Your task to perform on an android device: Add asus rog to the cart on walmart.com Image 0: 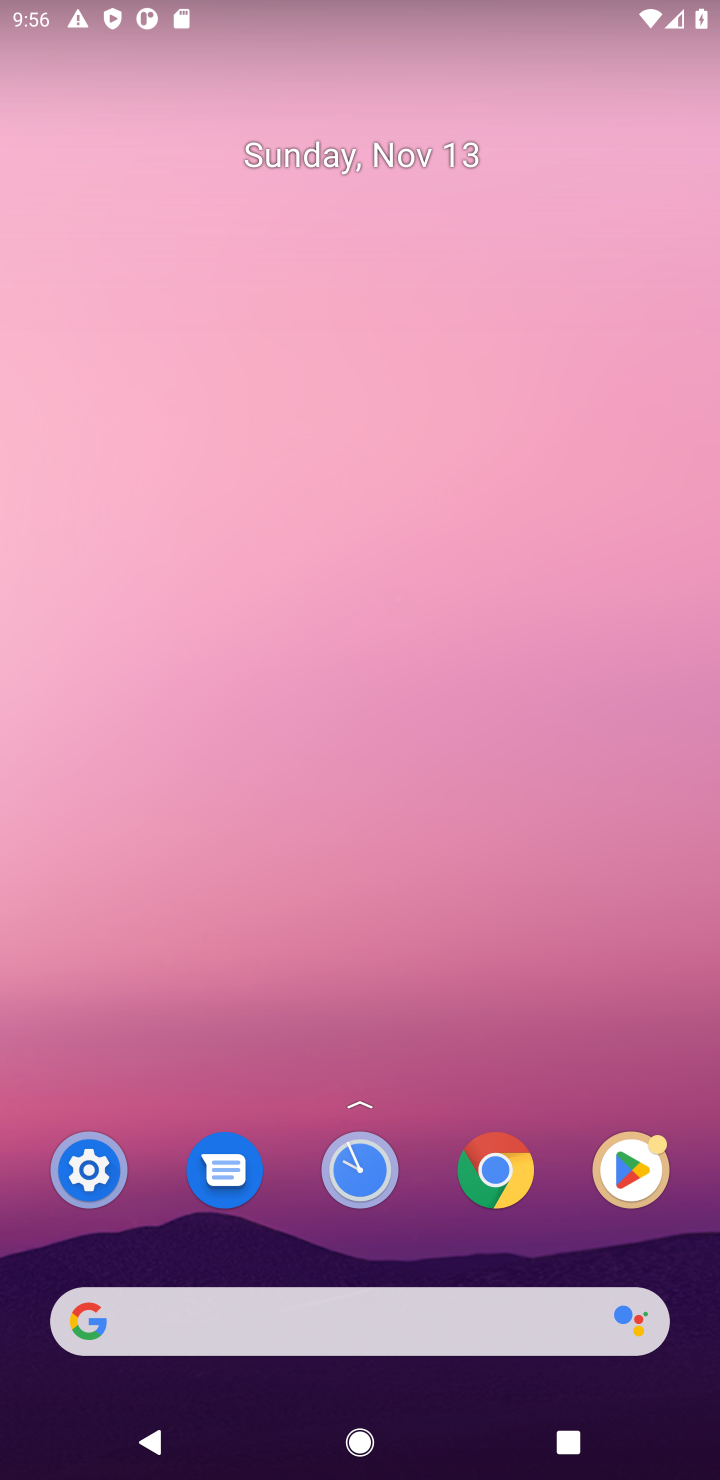
Step 0: click (243, 1340)
Your task to perform on an android device: Add asus rog to the cart on walmart.com Image 1: 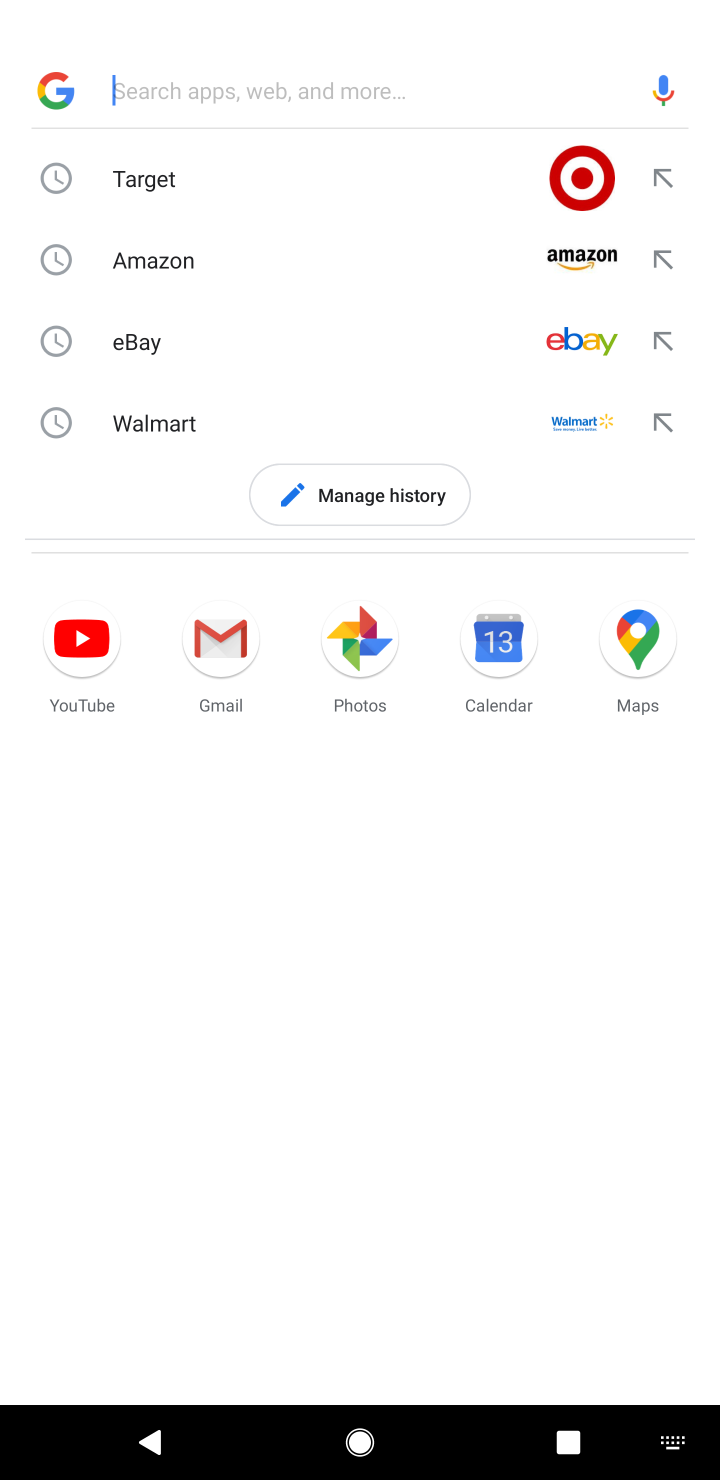
Step 1: type "walmart.com"
Your task to perform on an android device: Add asus rog to the cart on walmart.com Image 2: 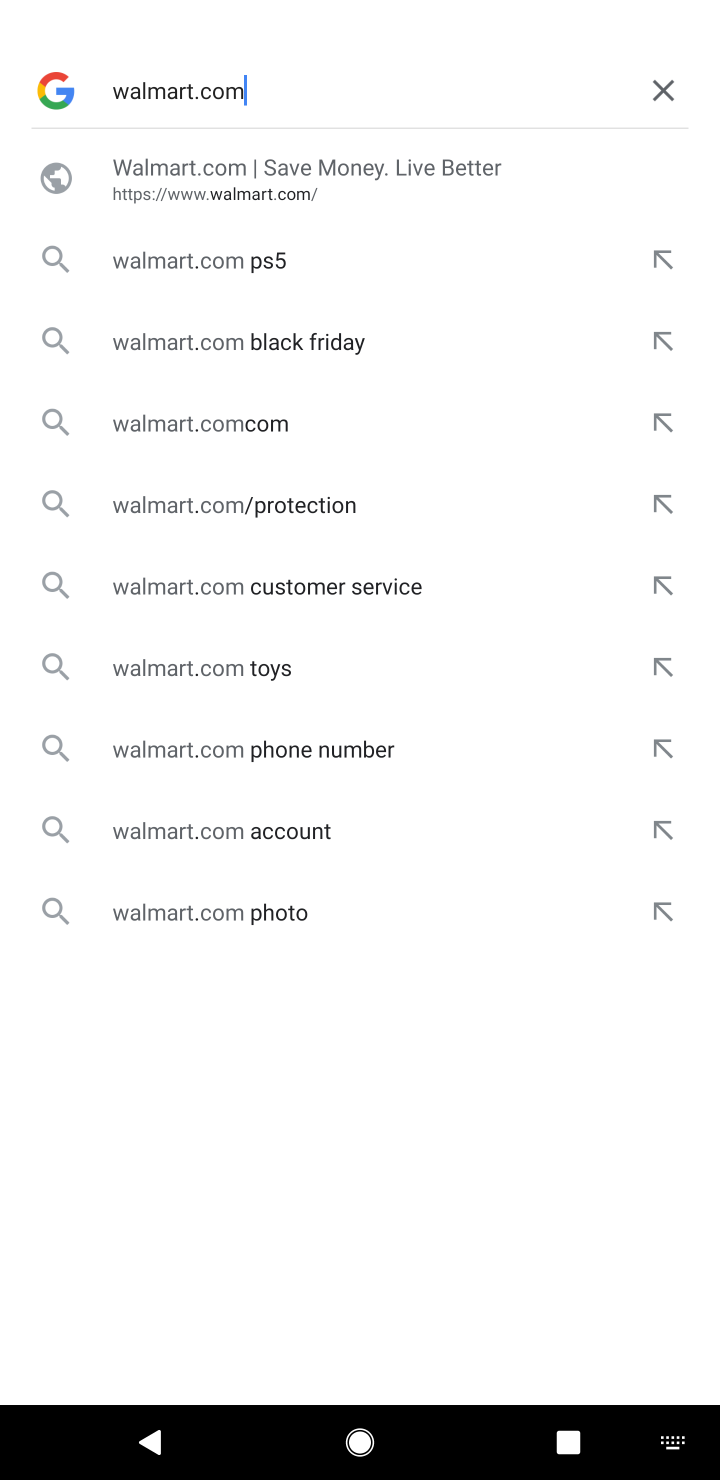
Step 2: click (260, 165)
Your task to perform on an android device: Add asus rog to the cart on walmart.com Image 3: 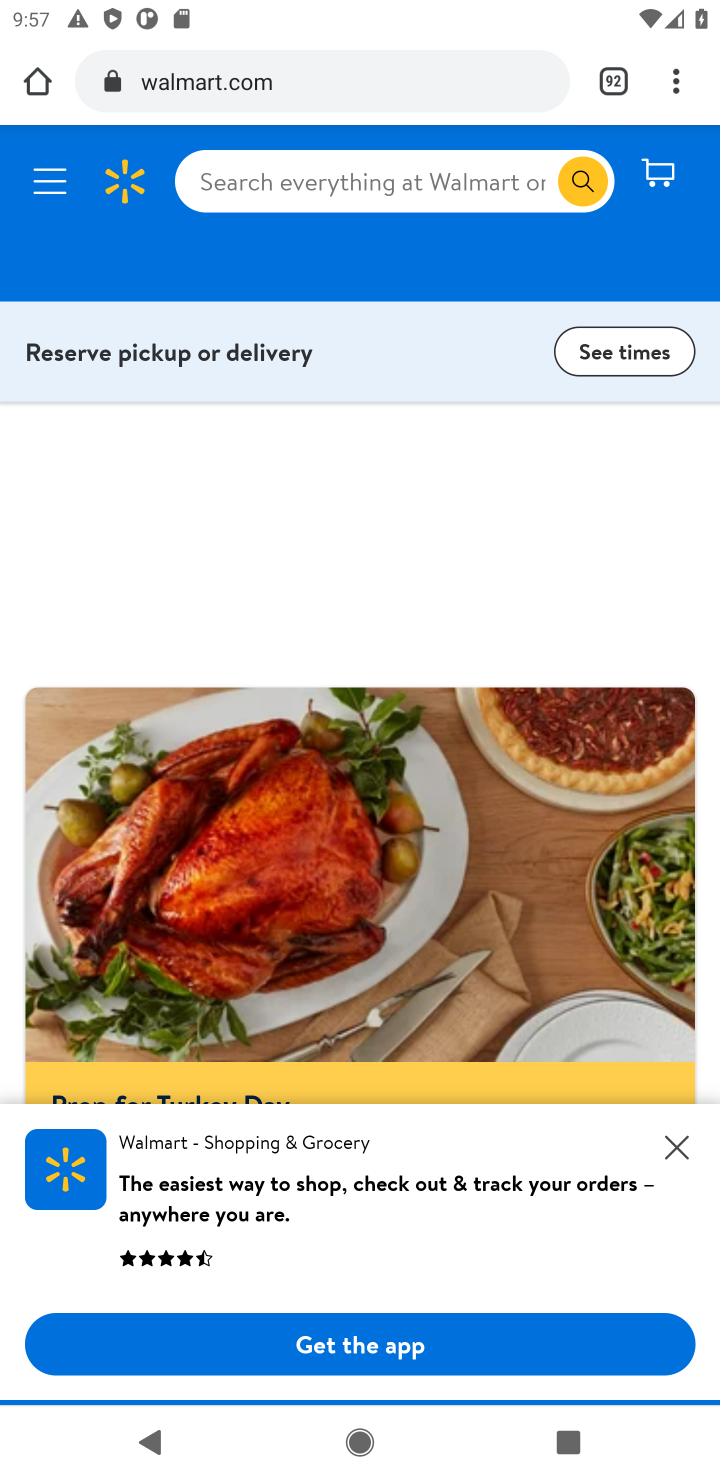
Step 3: click (287, 172)
Your task to perform on an android device: Add asus rog to the cart on walmart.com Image 4: 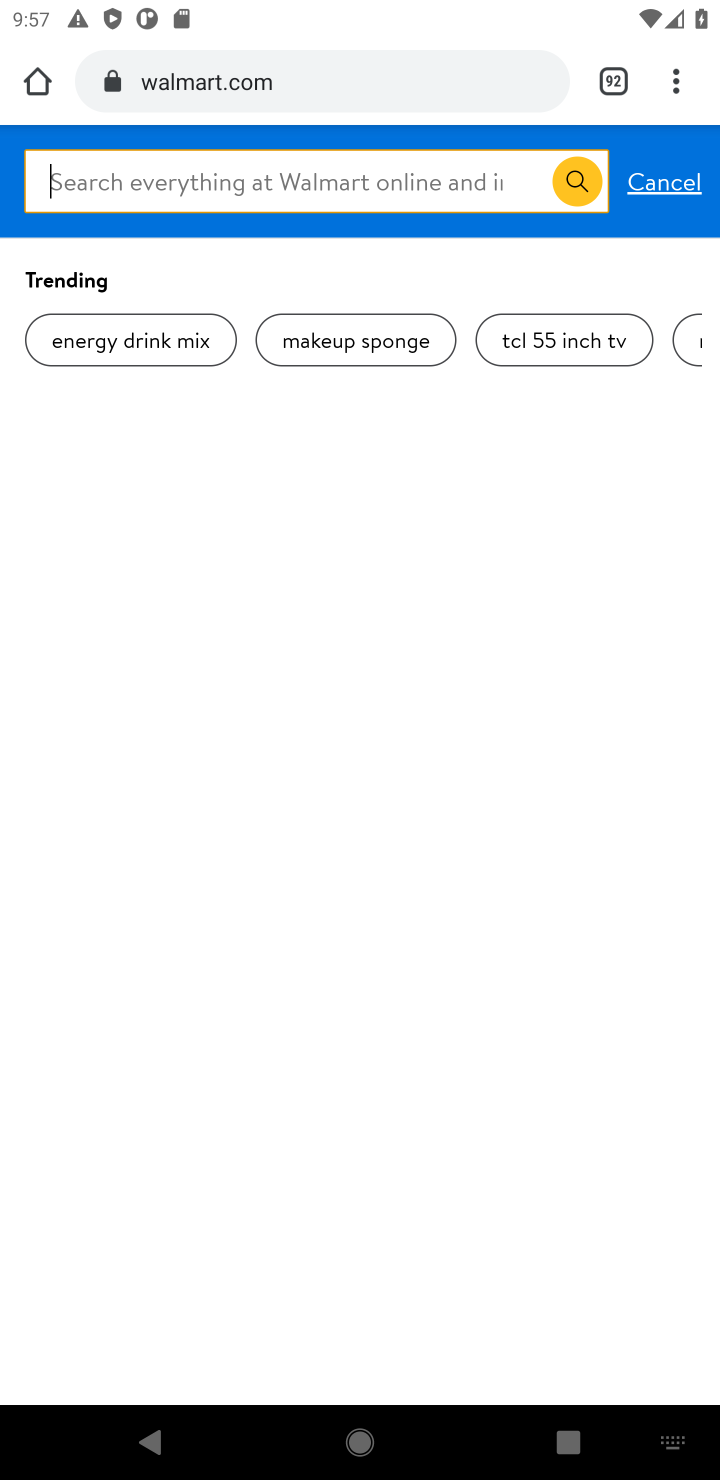
Step 4: type "asus rog"
Your task to perform on an android device: Add asus rog to the cart on walmart.com Image 5: 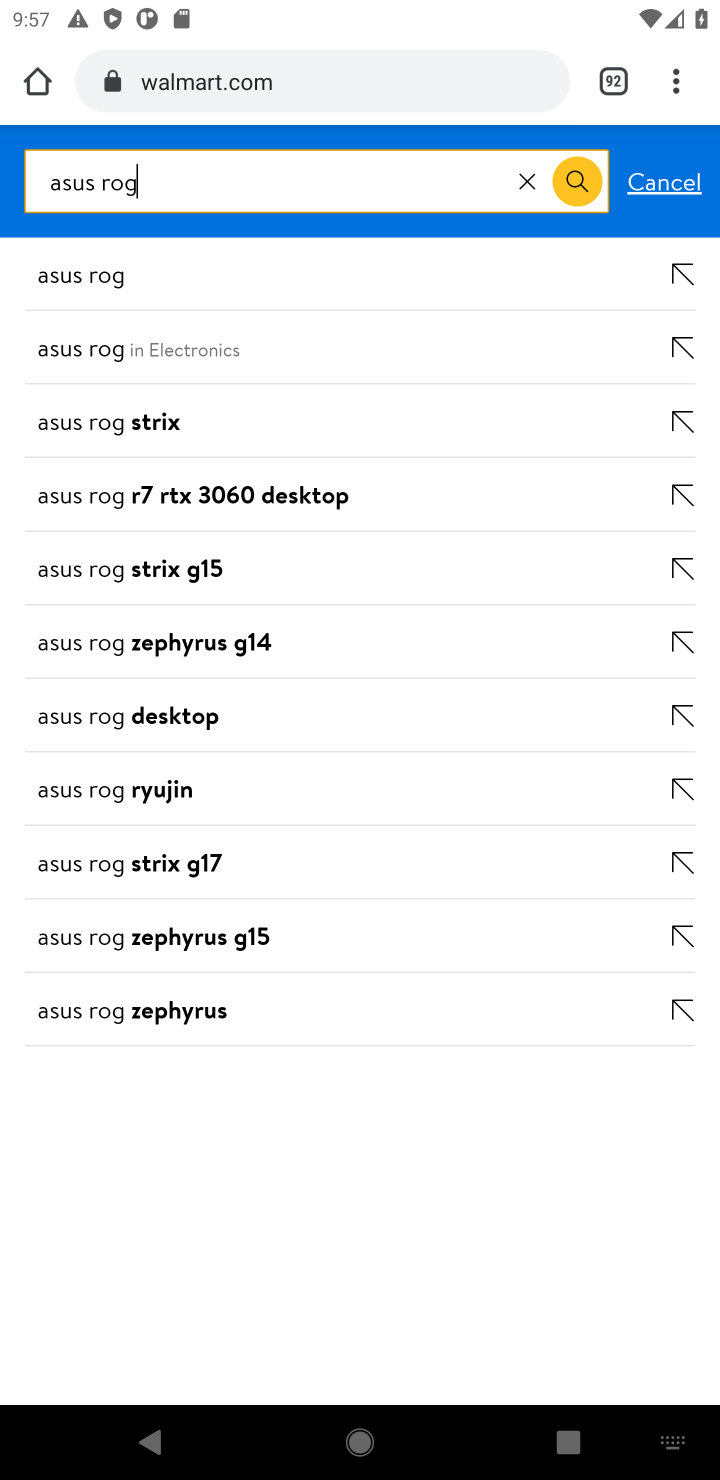
Step 5: click (232, 260)
Your task to perform on an android device: Add asus rog to the cart on walmart.com Image 6: 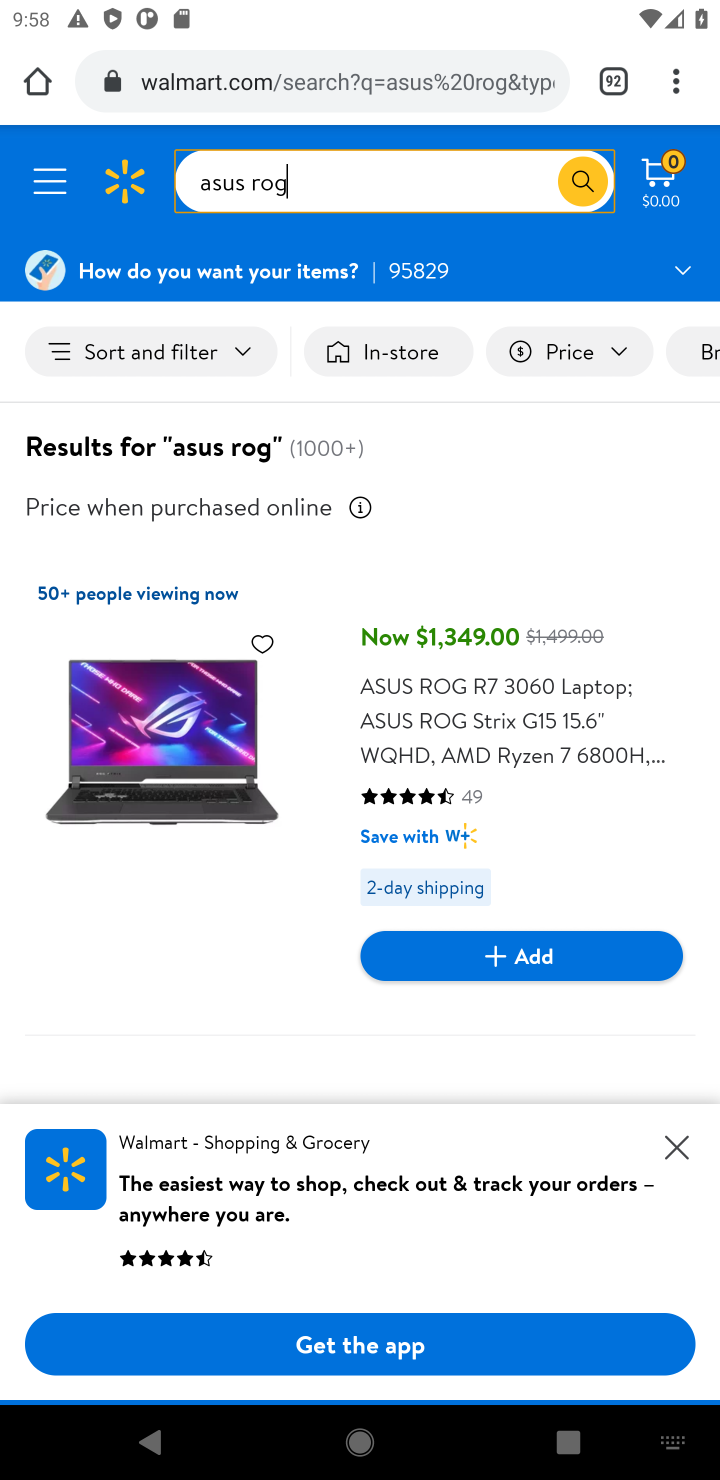
Step 6: task complete